Your task to perform on an android device: What is the news today? Image 0: 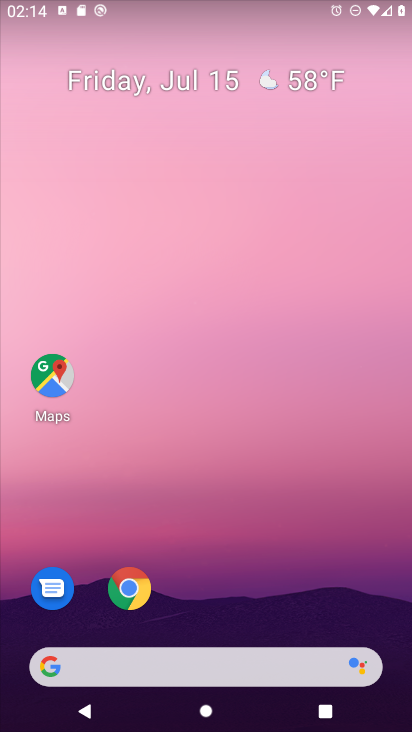
Step 0: drag from (10, 261) to (393, 333)
Your task to perform on an android device: What is the news today? Image 1: 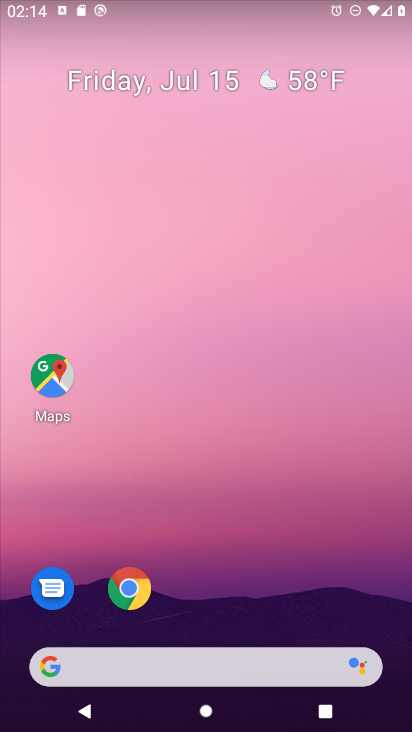
Step 1: task complete